Your task to perform on an android device: Go to Google maps Image 0: 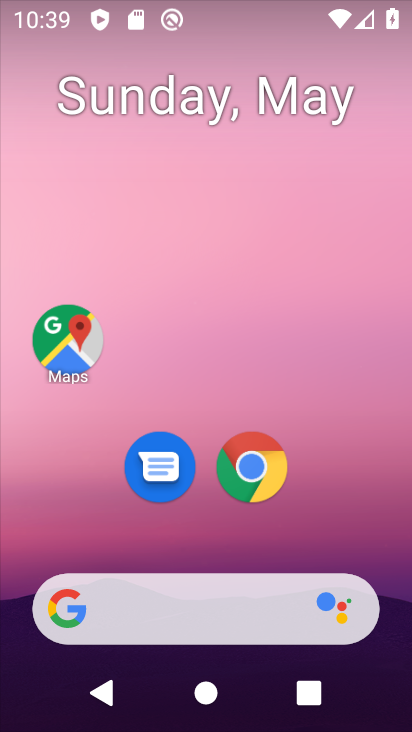
Step 0: click (63, 343)
Your task to perform on an android device: Go to Google maps Image 1: 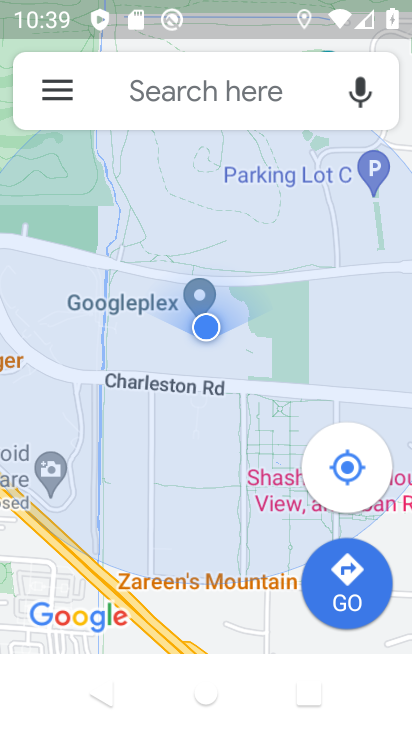
Step 1: task complete